Your task to perform on an android device: turn off improve location accuracy Image 0: 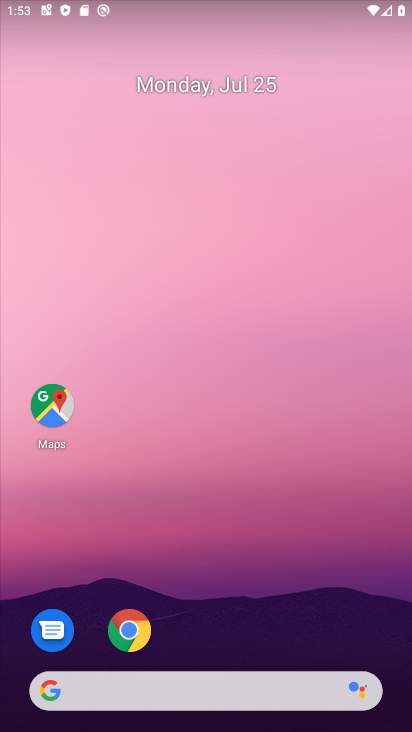
Step 0: drag from (283, 640) to (254, 199)
Your task to perform on an android device: turn off improve location accuracy Image 1: 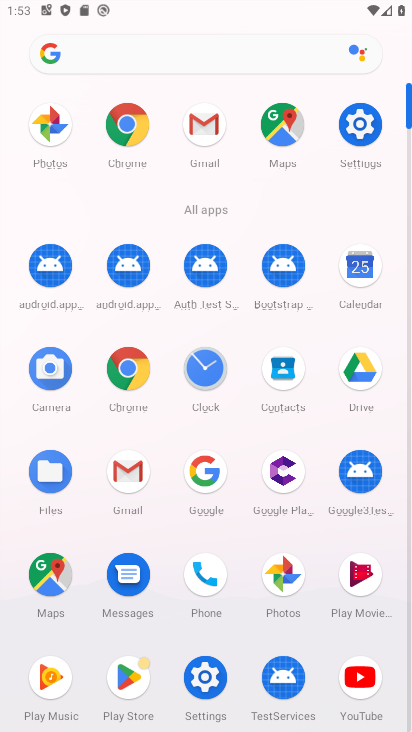
Step 1: click (360, 129)
Your task to perform on an android device: turn off improve location accuracy Image 2: 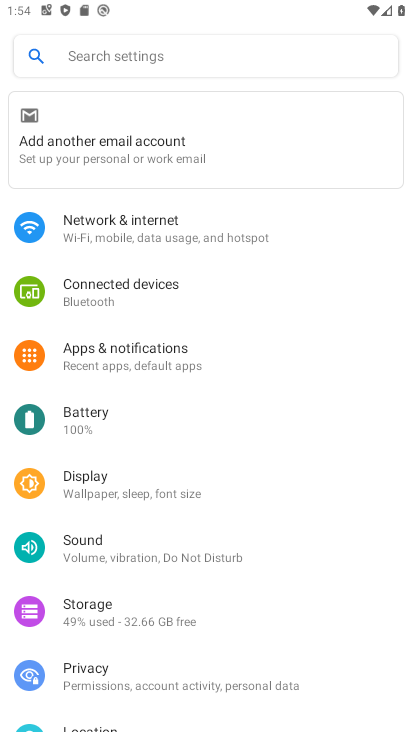
Step 2: drag from (211, 666) to (204, 293)
Your task to perform on an android device: turn off improve location accuracy Image 3: 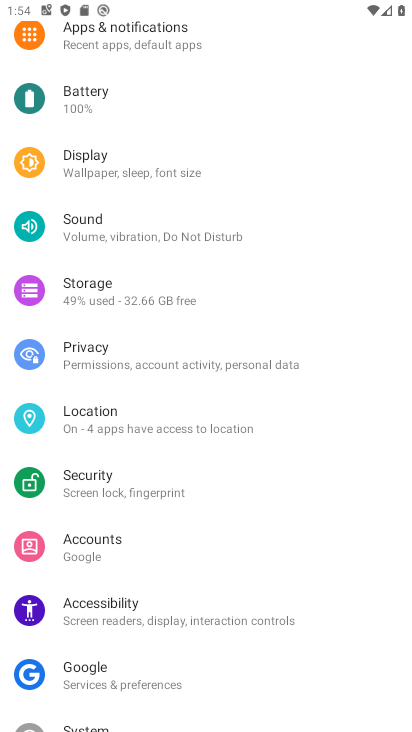
Step 3: click (87, 427)
Your task to perform on an android device: turn off improve location accuracy Image 4: 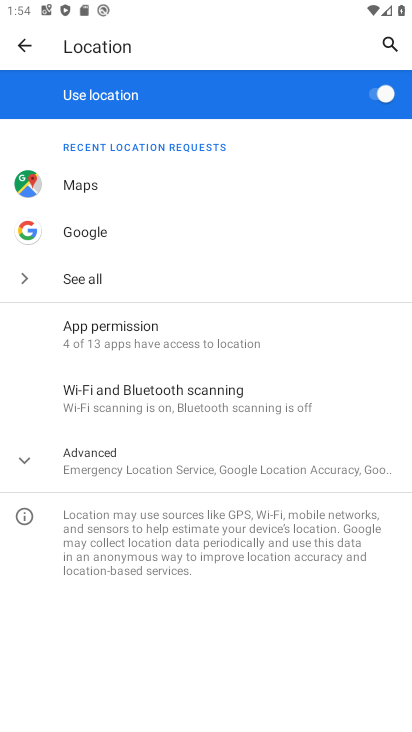
Step 4: click (173, 461)
Your task to perform on an android device: turn off improve location accuracy Image 5: 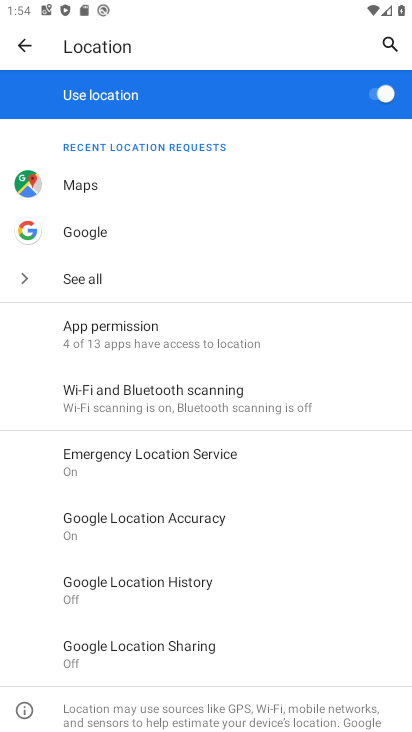
Step 5: click (238, 525)
Your task to perform on an android device: turn off improve location accuracy Image 6: 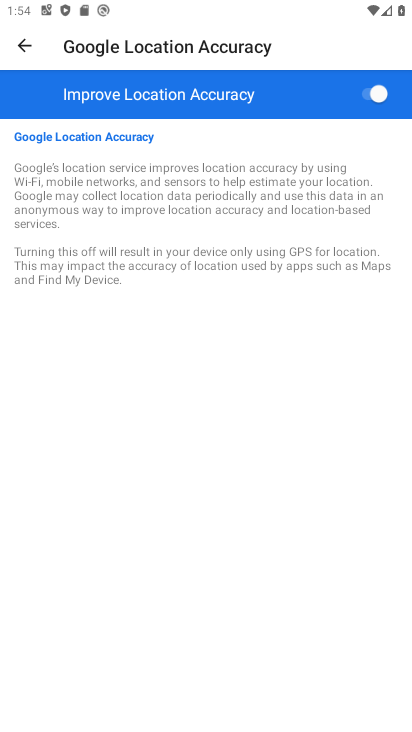
Step 6: click (367, 114)
Your task to perform on an android device: turn off improve location accuracy Image 7: 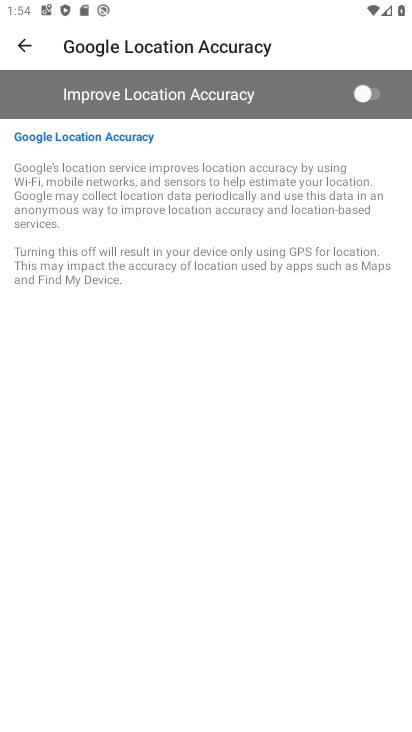
Step 7: task complete